Your task to perform on an android device: see creations saved in the google photos Image 0: 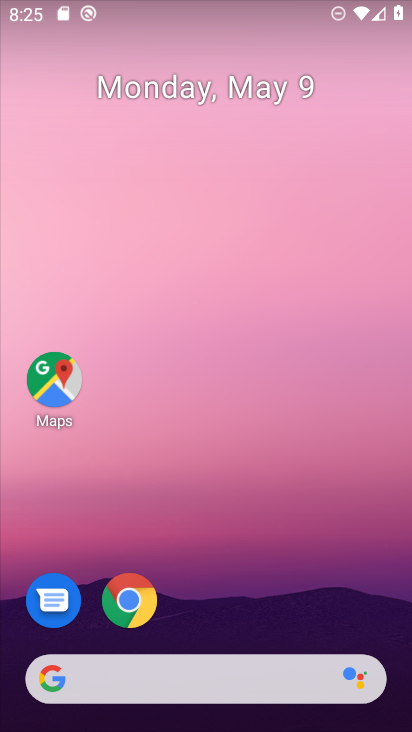
Step 0: drag from (243, 601) to (177, 12)
Your task to perform on an android device: see creations saved in the google photos Image 1: 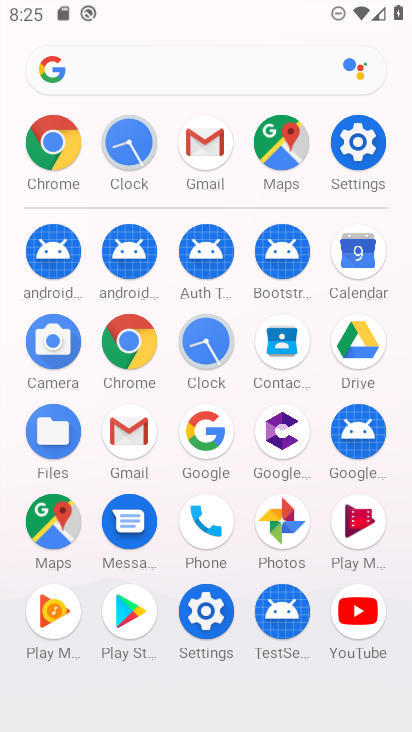
Step 1: click (279, 514)
Your task to perform on an android device: see creations saved in the google photos Image 2: 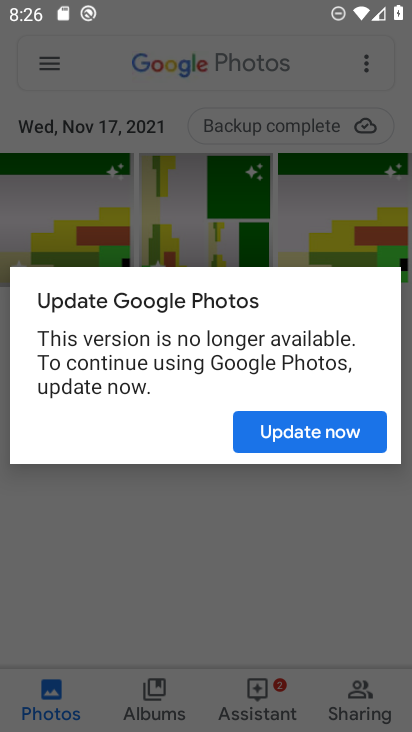
Step 2: click (290, 422)
Your task to perform on an android device: see creations saved in the google photos Image 3: 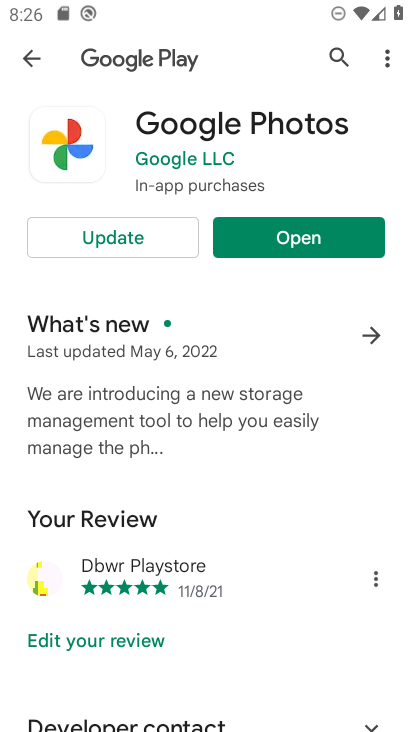
Step 3: click (108, 229)
Your task to perform on an android device: see creations saved in the google photos Image 4: 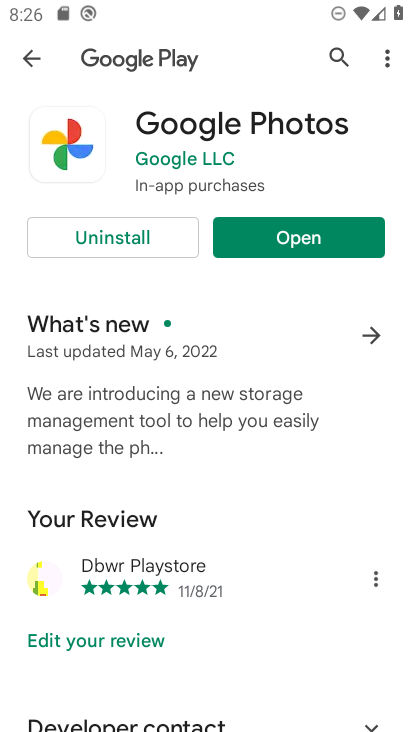
Step 4: click (279, 240)
Your task to perform on an android device: see creations saved in the google photos Image 5: 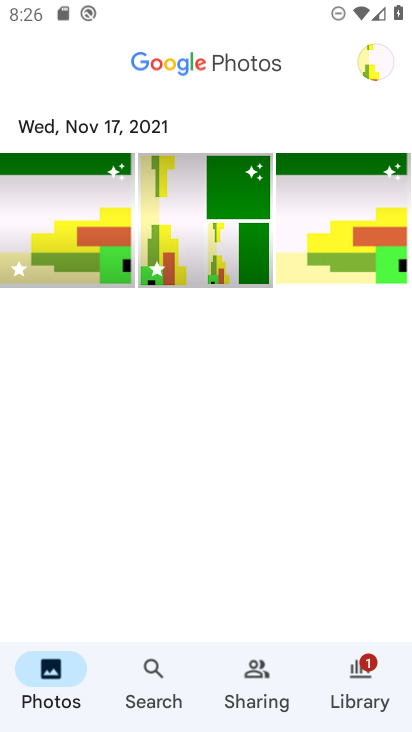
Step 5: task complete